Your task to perform on an android device: open device folders in google photos Image 0: 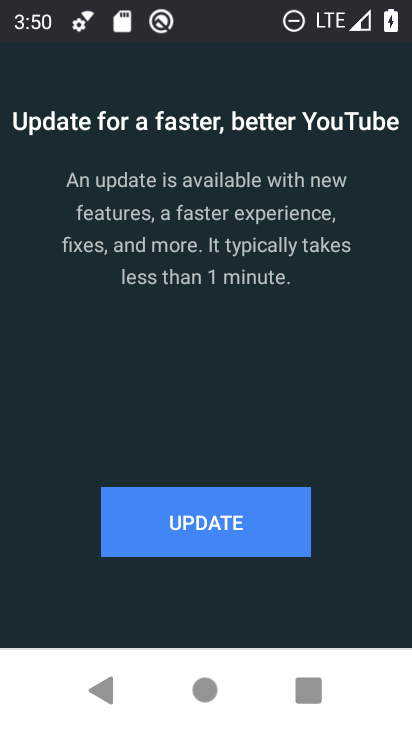
Step 0: click (267, 527)
Your task to perform on an android device: open device folders in google photos Image 1: 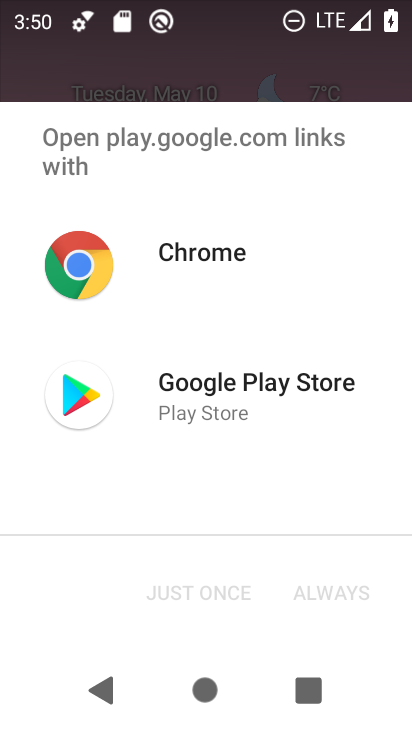
Step 1: press home button
Your task to perform on an android device: open device folders in google photos Image 2: 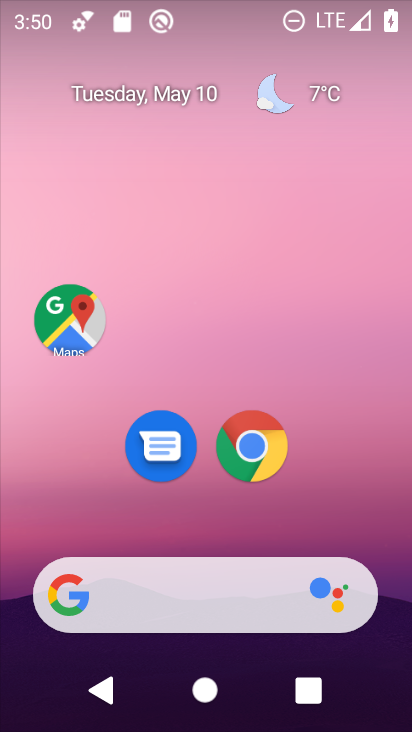
Step 2: drag from (310, 546) to (246, 66)
Your task to perform on an android device: open device folders in google photos Image 3: 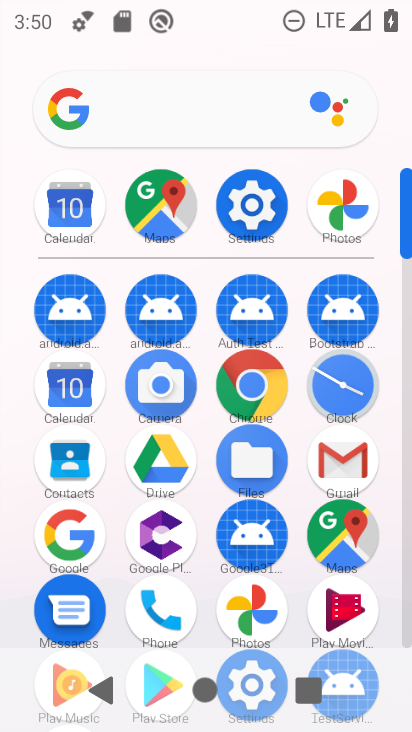
Step 3: click (262, 602)
Your task to perform on an android device: open device folders in google photos Image 4: 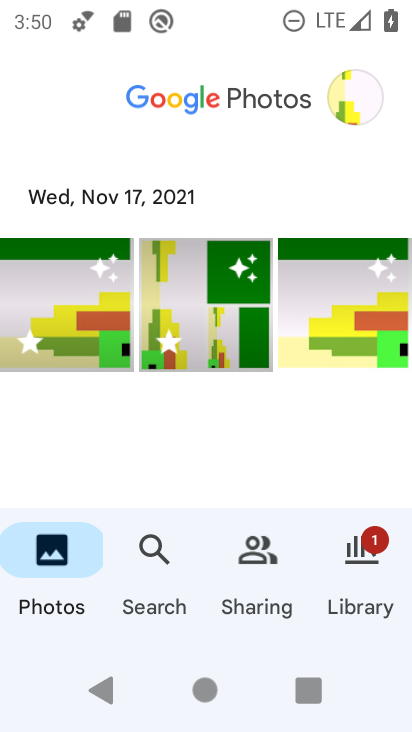
Step 4: click (147, 99)
Your task to perform on an android device: open device folders in google photos Image 5: 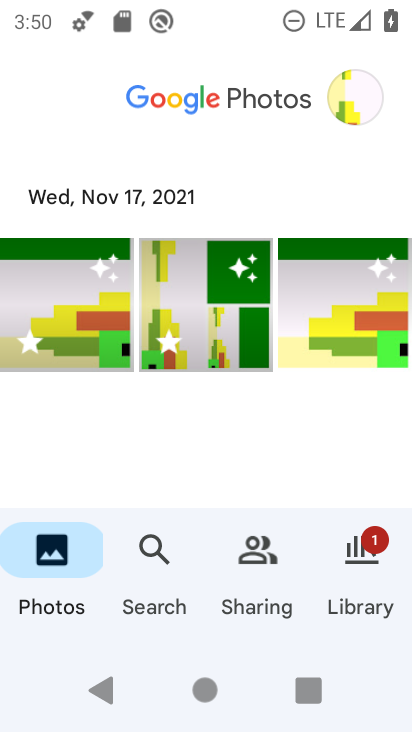
Step 5: click (137, 542)
Your task to perform on an android device: open device folders in google photos Image 6: 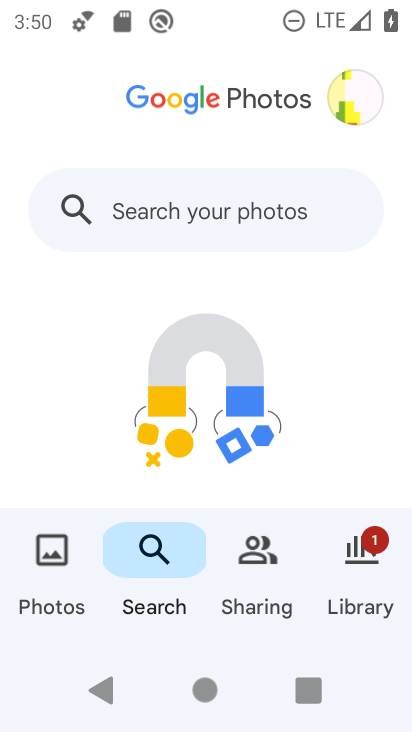
Step 6: click (188, 202)
Your task to perform on an android device: open device folders in google photos Image 7: 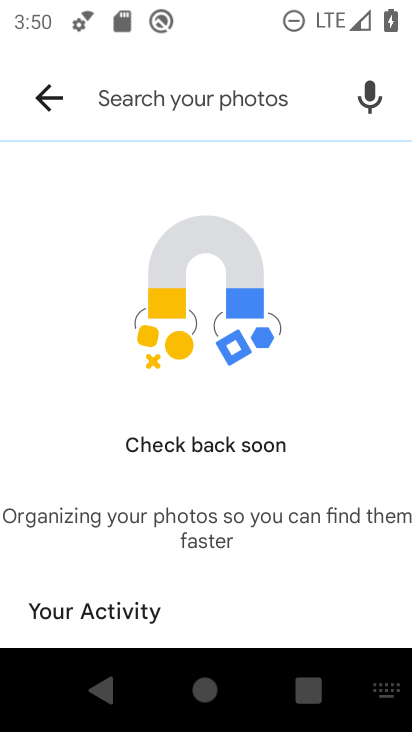
Step 7: type "device folders"
Your task to perform on an android device: open device folders in google photos Image 8: 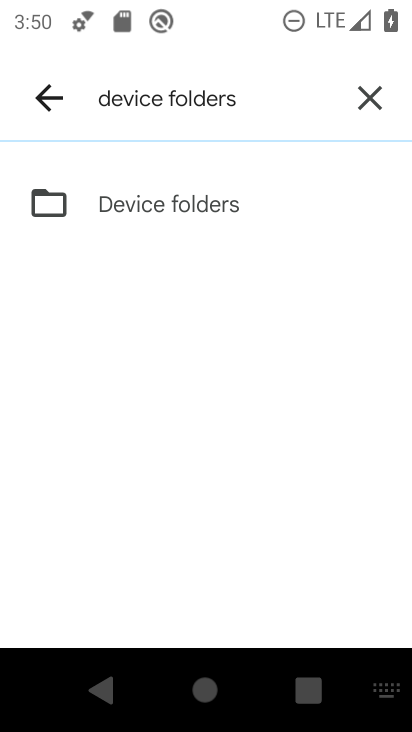
Step 8: click (172, 199)
Your task to perform on an android device: open device folders in google photos Image 9: 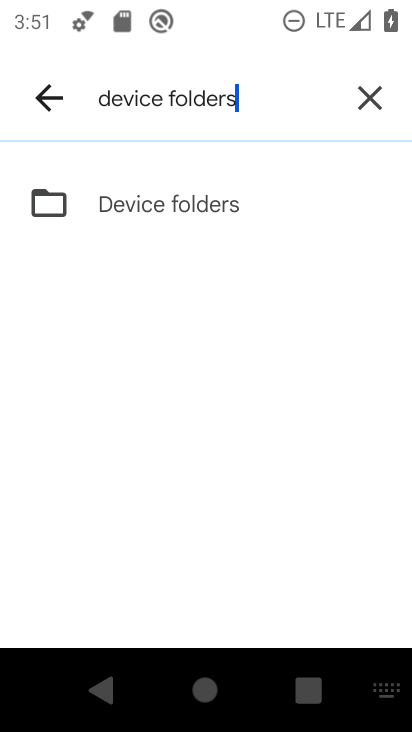
Step 9: click (176, 207)
Your task to perform on an android device: open device folders in google photos Image 10: 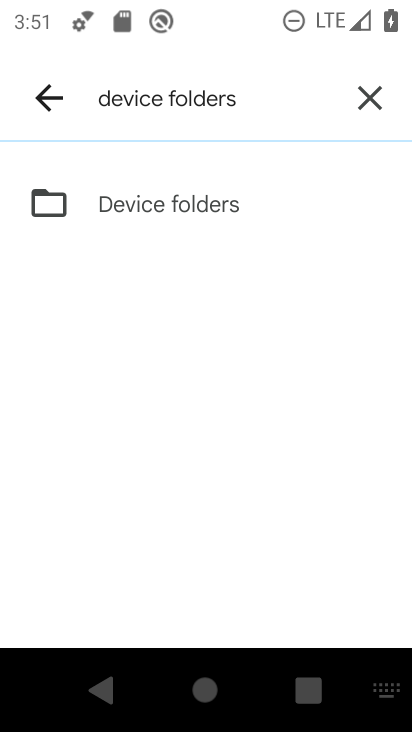
Step 10: task complete